Your task to perform on an android device: set an alarm Image 0: 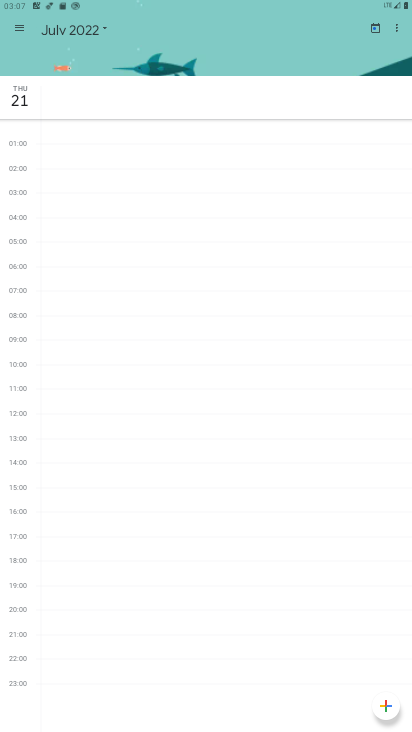
Step 0: press home button
Your task to perform on an android device: set an alarm Image 1: 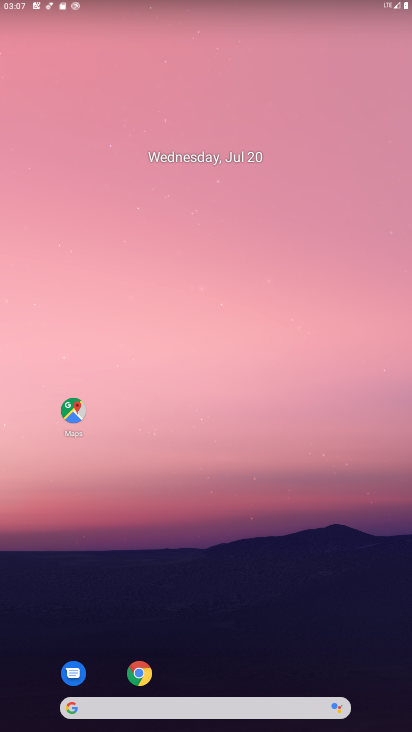
Step 1: drag from (224, 669) to (240, 79)
Your task to perform on an android device: set an alarm Image 2: 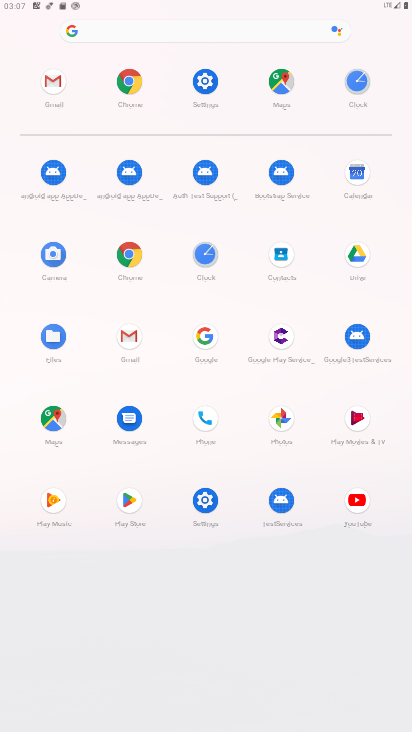
Step 2: click (203, 258)
Your task to perform on an android device: set an alarm Image 3: 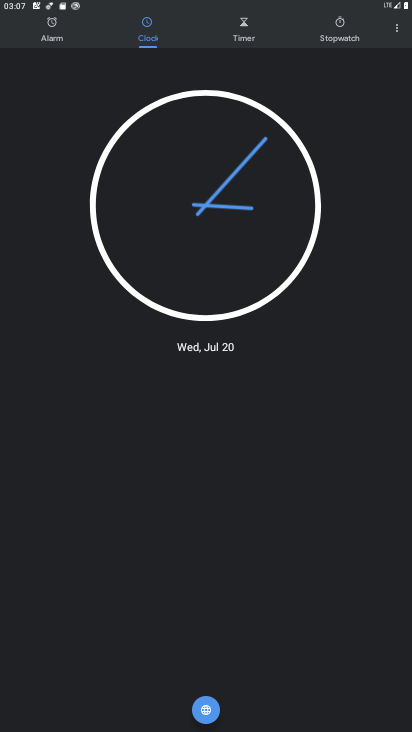
Step 3: click (51, 32)
Your task to perform on an android device: set an alarm Image 4: 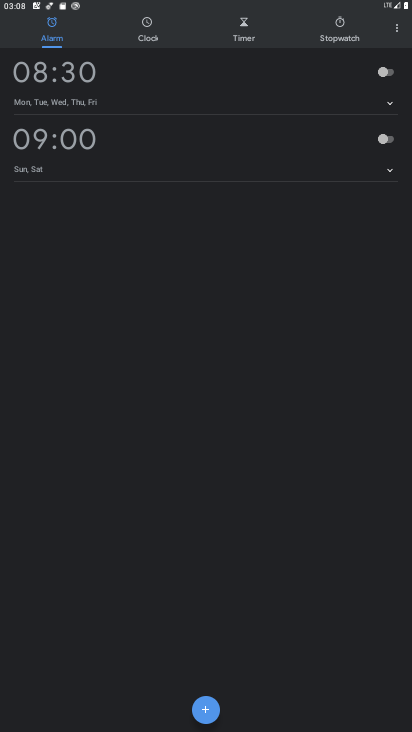
Step 4: click (395, 74)
Your task to perform on an android device: set an alarm Image 5: 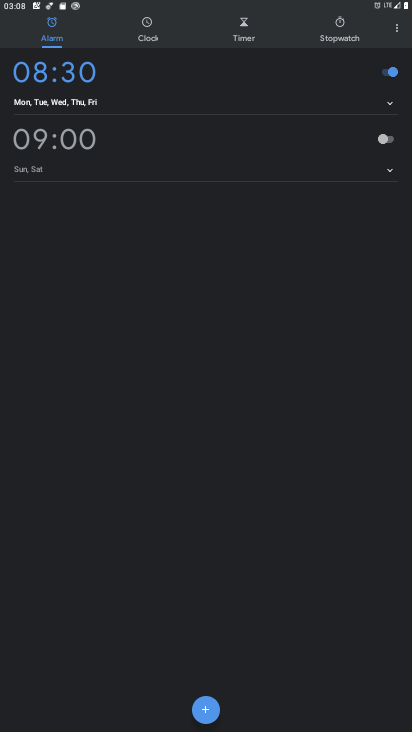
Step 5: task complete